Your task to perform on an android device: Clear the shopping cart on target.com. Search for lenovo thinkpad on target.com, select the first entry, add it to the cart, then select checkout. Image 0: 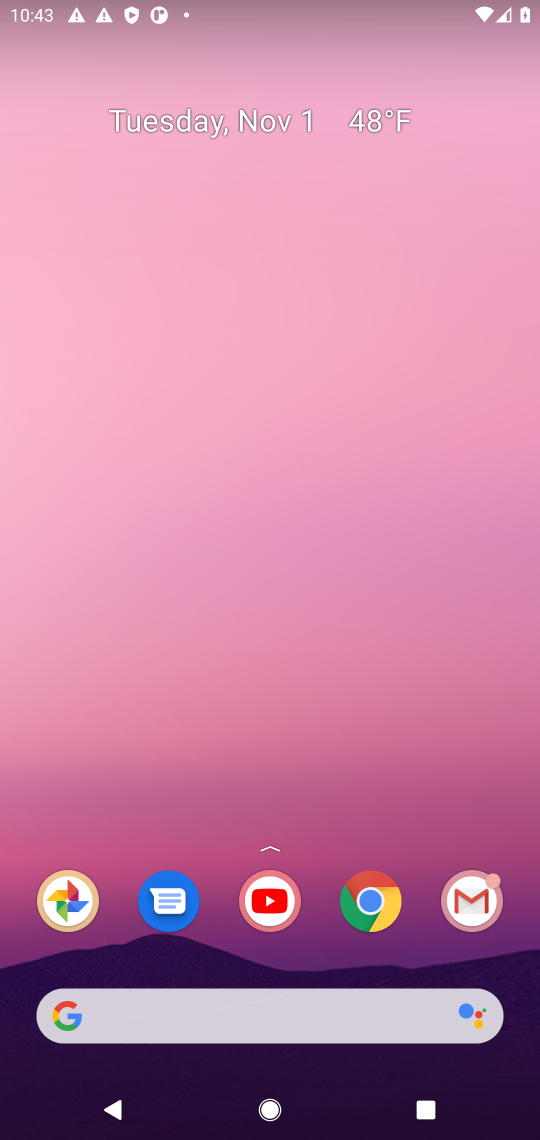
Step 0: drag from (319, 873) to (269, 222)
Your task to perform on an android device: Clear the shopping cart on target.com. Search for lenovo thinkpad on target.com, select the first entry, add it to the cart, then select checkout. Image 1: 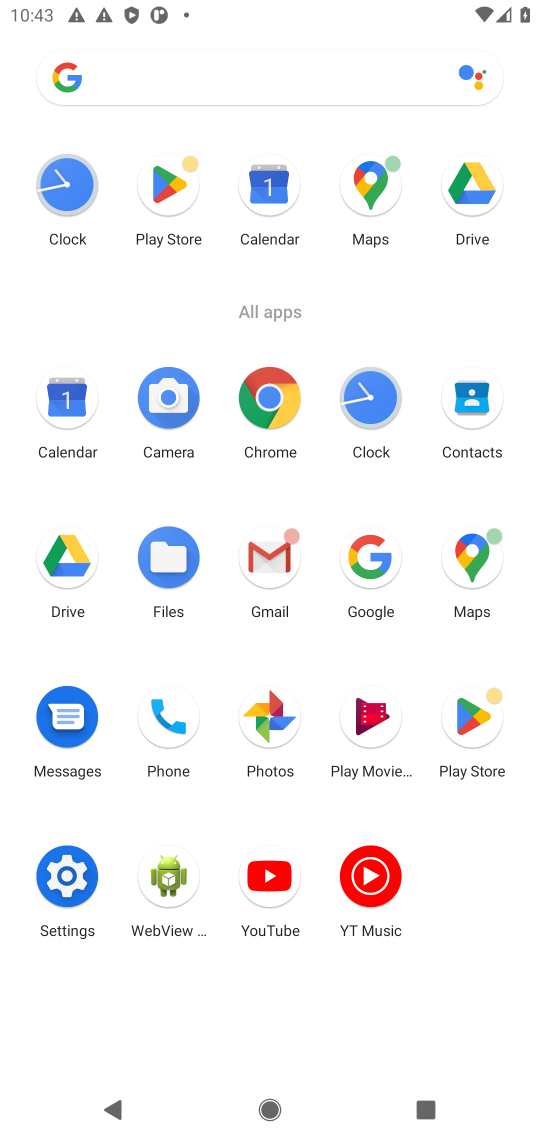
Step 1: click (271, 401)
Your task to perform on an android device: Clear the shopping cart on target.com. Search for lenovo thinkpad on target.com, select the first entry, add it to the cart, then select checkout. Image 2: 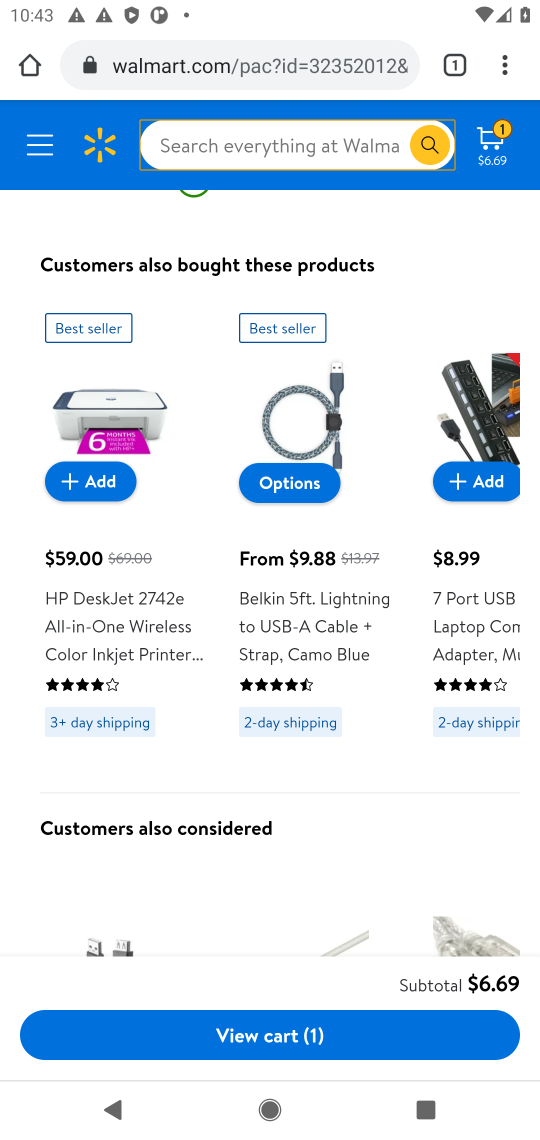
Step 2: click (308, 57)
Your task to perform on an android device: Clear the shopping cart on target.com. Search for lenovo thinkpad on target.com, select the first entry, add it to the cart, then select checkout. Image 3: 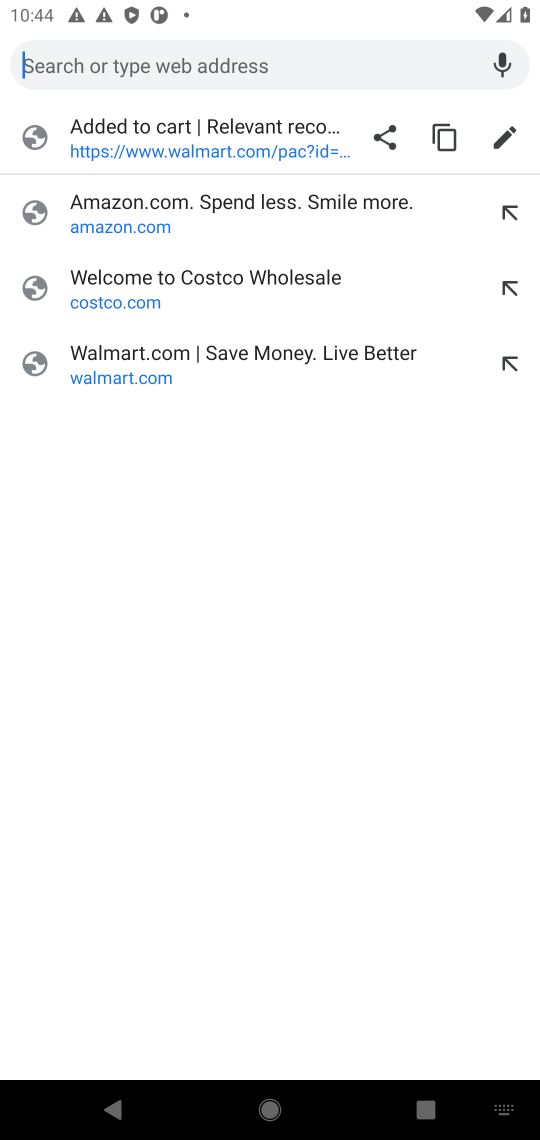
Step 3: type "target.com"
Your task to perform on an android device: Clear the shopping cart on target.com. Search for lenovo thinkpad on target.com, select the first entry, add it to the cart, then select checkout. Image 4: 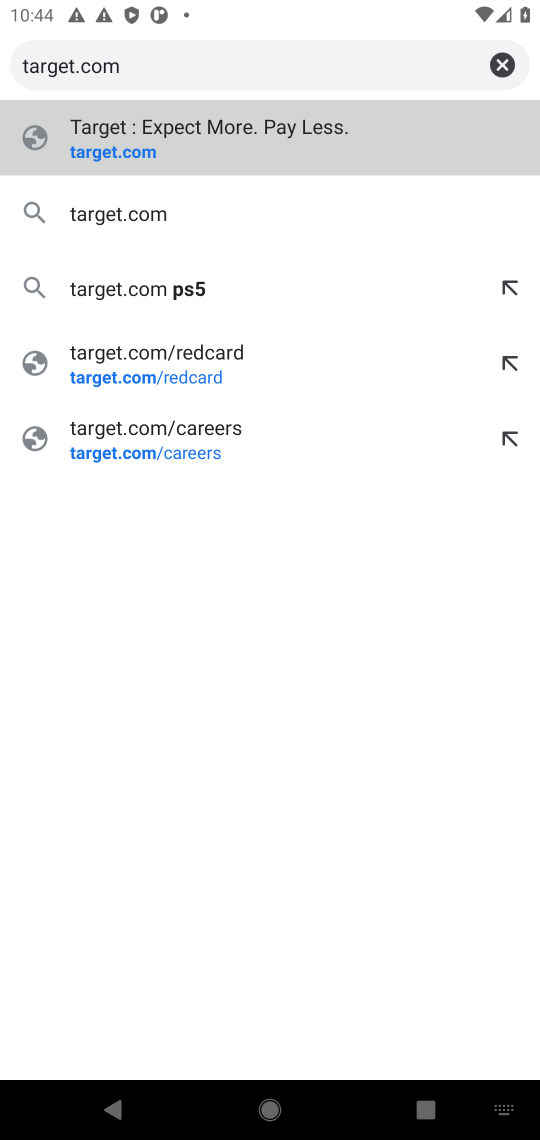
Step 4: press enter
Your task to perform on an android device: Clear the shopping cart on target.com. Search for lenovo thinkpad on target.com, select the first entry, add it to the cart, then select checkout. Image 5: 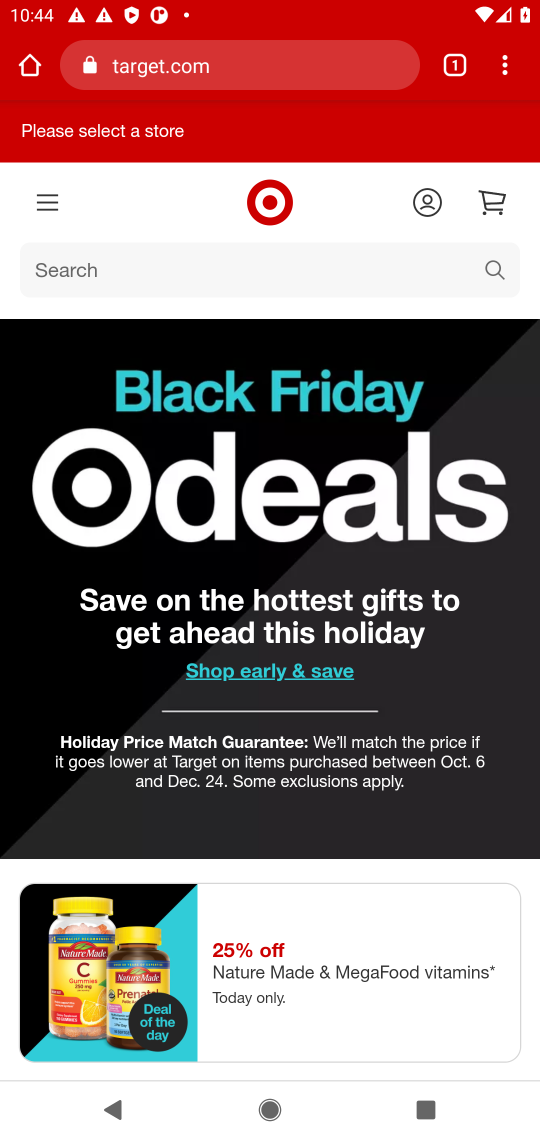
Step 5: click (505, 201)
Your task to perform on an android device: Clear the shopping cart on target.com. Search for lenovo thinkpad on target.com, select the first entry, add it to the cart, then select checkout. Image 6: 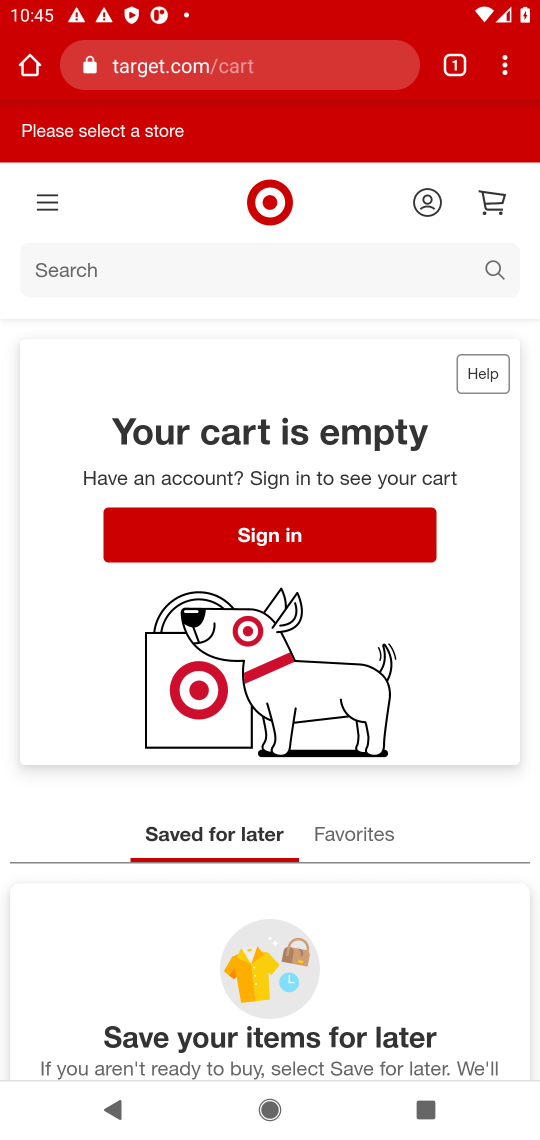
Step 6: click (332, 270)
Your task to perform on an android device: Clear the shopping cart on target.com. Search for lenovo thinkpad on target.com, select the first entry, add it to the cart, then select checkout. Image 7: 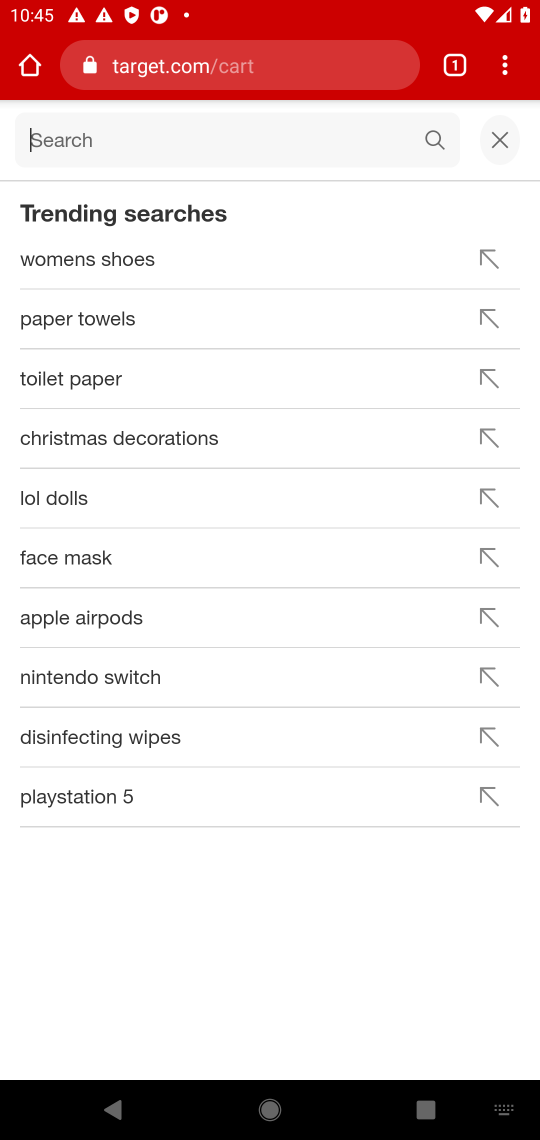
Step 7: type "lenovo thinkpad"
Your task to perform on an android device: Clear the shopping cart on target.com. Search for lenovo thinkpad on target.com, select the first entry, add it to the cart, then select checkout. Image 8: 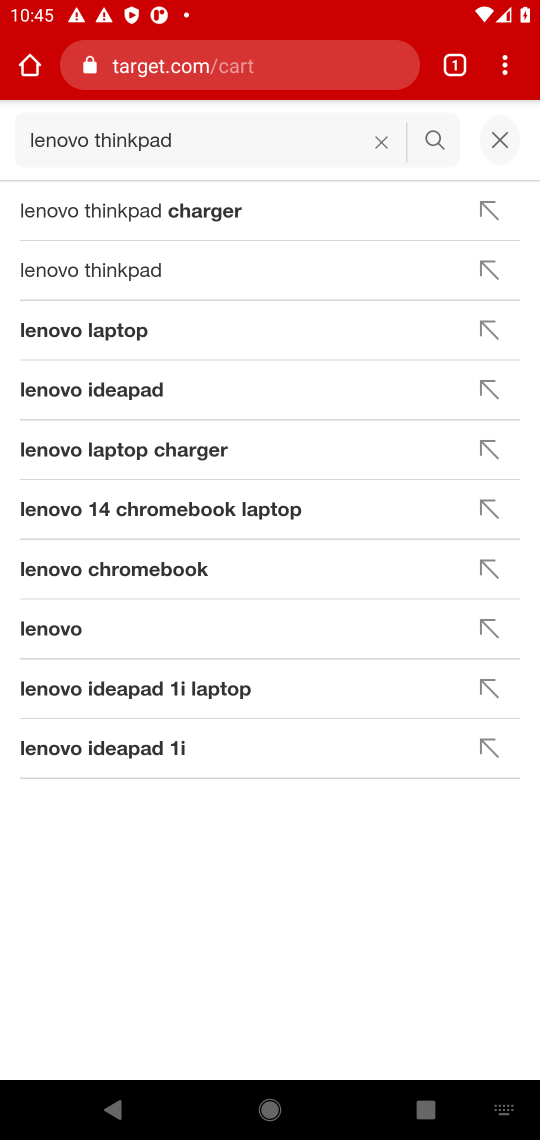
Step 8: press enter
Your task to perform on an android device: Clear the shopping cart on target.com. Search for lenovo thinkpad on target.com, select the first entry, add it to the cart, then select checkout. Image 9: 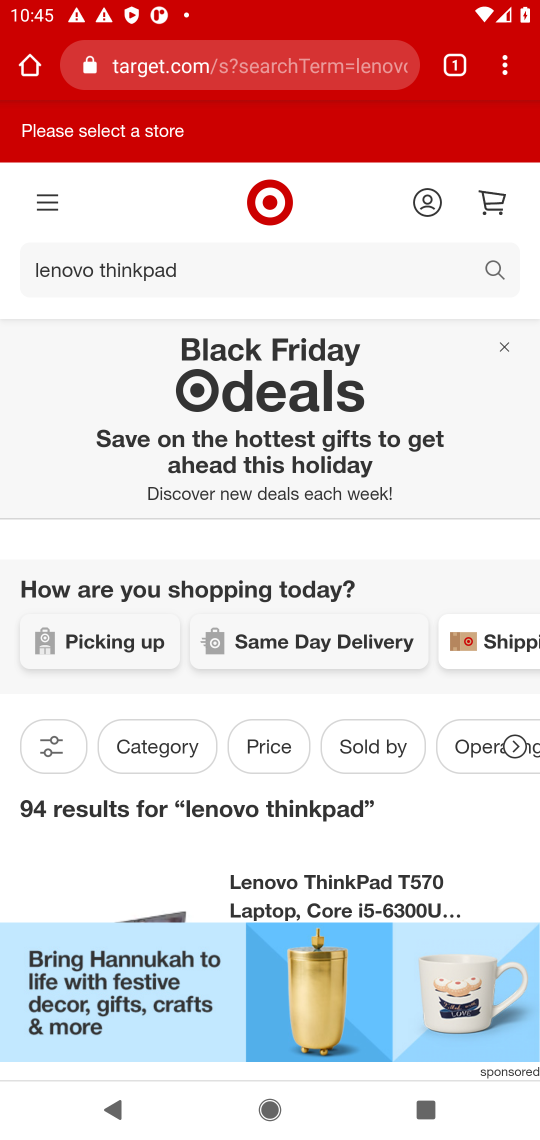
Step 9: drag from (348, 783) to (398, 458)
Your task to perform on an android device: Clear the shopping cart on target.com. Search for lenovo thinkpad on target.com, select the first entry, add it to the cart, then select checkout. Image 10: 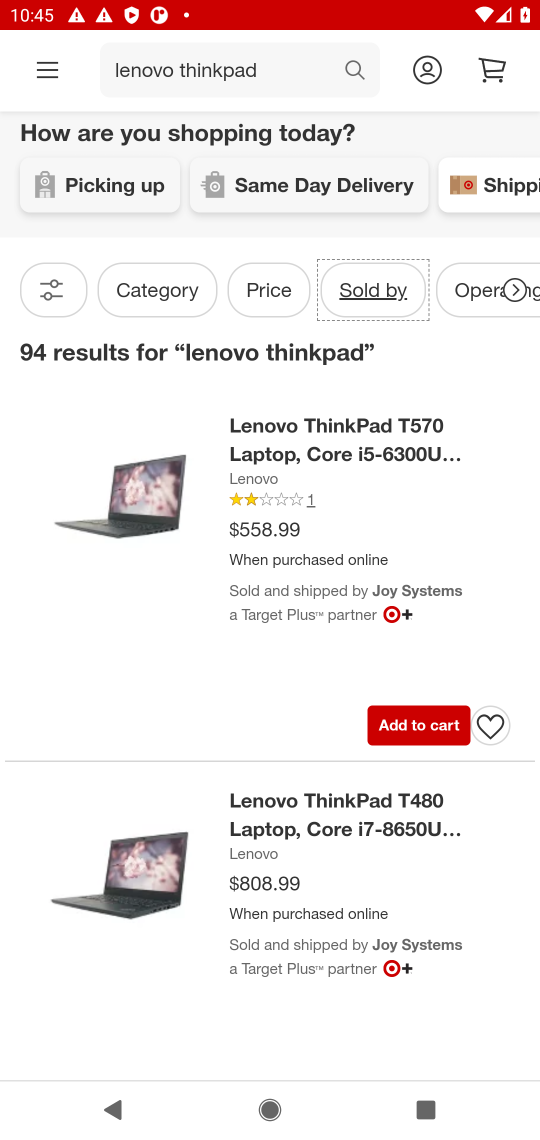
Step 10: click (401, 722)
Your task to perform on an android device: Clear the shopping cart on target.com. Search for lenovo thinkpad on target.com, select the first entry, add it to the cart, then select checkout. Image 11: 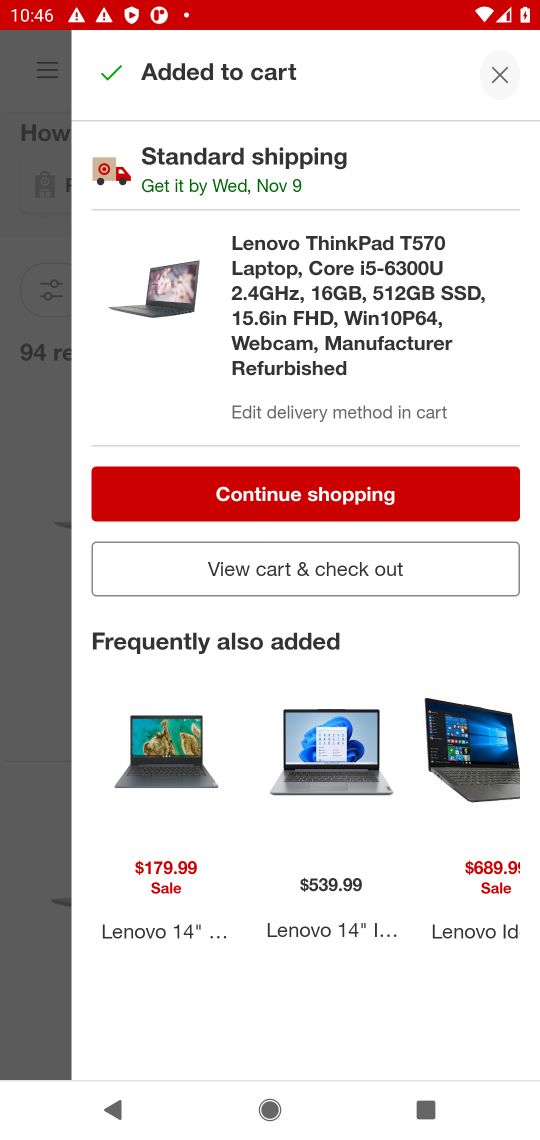
Step 11: click (355, 572)
Your task to perform on an android device: Clear the shopping cart on target.com. Search for lenovo thinkpad on target.com, select the first entry, add it to the cart, then select checkout. Image 12: 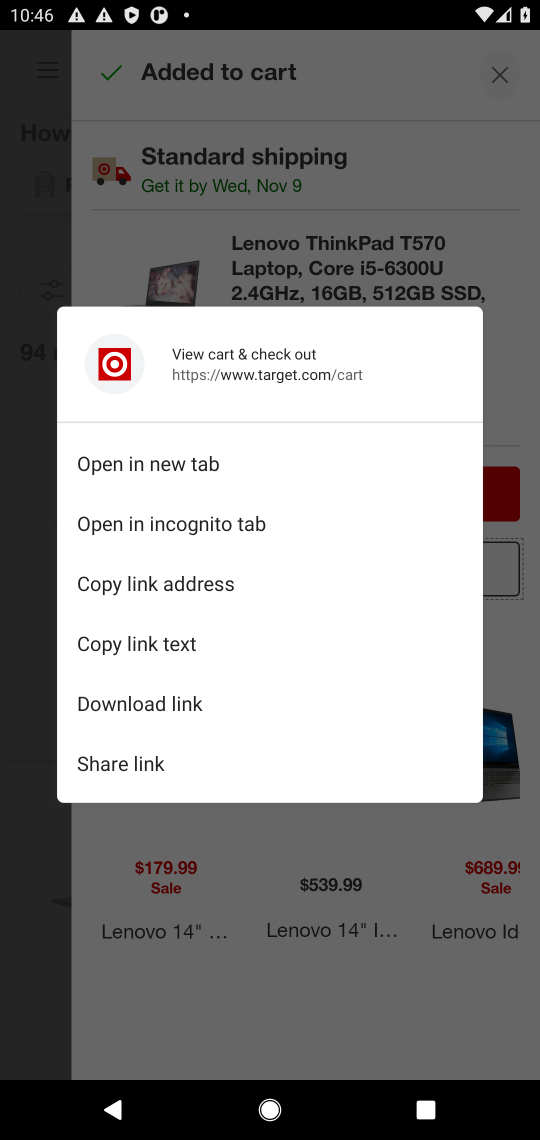
Step 12: click (356, 193)
Your task to perform on an android device: Clear the shopping cart on target.com. Search for lenovo thinkpad on target.com, select the first entry, add it to the cart, then select checkout. Image 13: 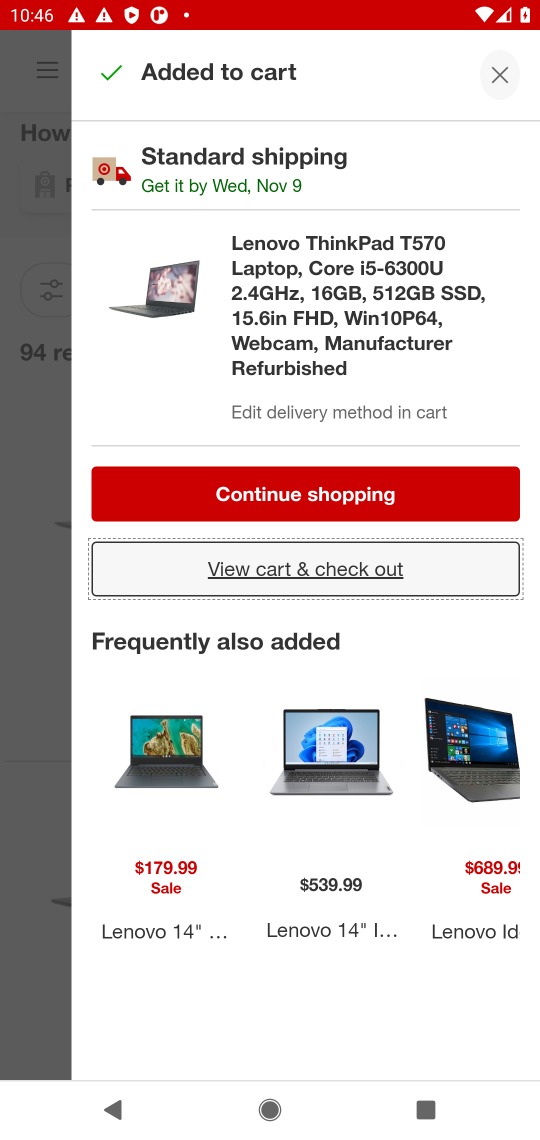
Step 13: click (449, 573)
Your task to perform on an android device: Clear the shopping cart on target.com. Search for lenovo thinkpad on target.com, select the first entry, add it to the cart, then select checkout. Image 14: 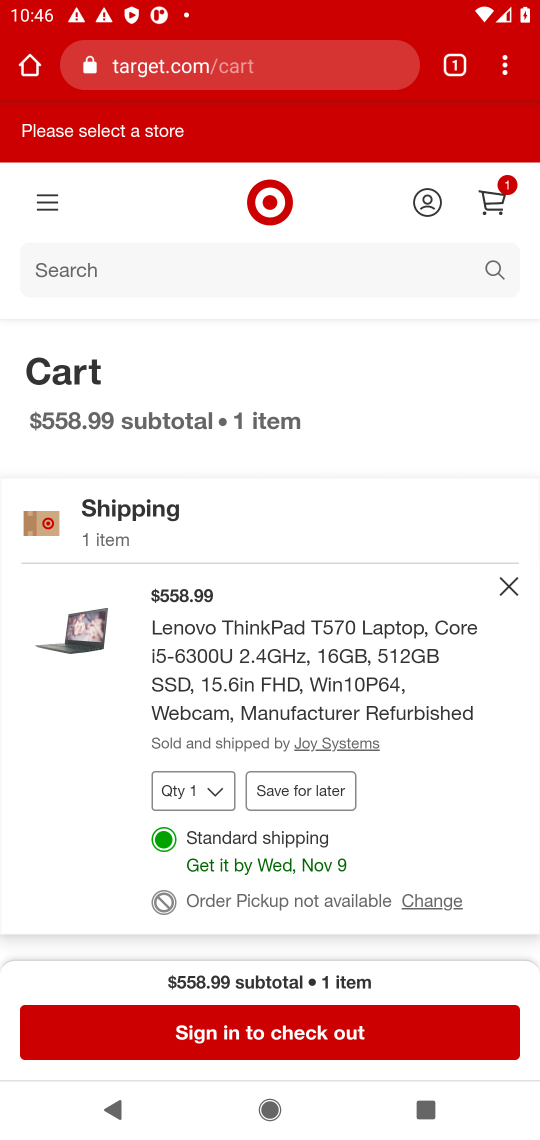
Step 14: click (348, 1020)
Your task to perform on an android device: Clear the shopping cart on target.com. Search for lenovo thinkpad on target.com, select the first entry, add it to the cart, then select checkout. Image 15: 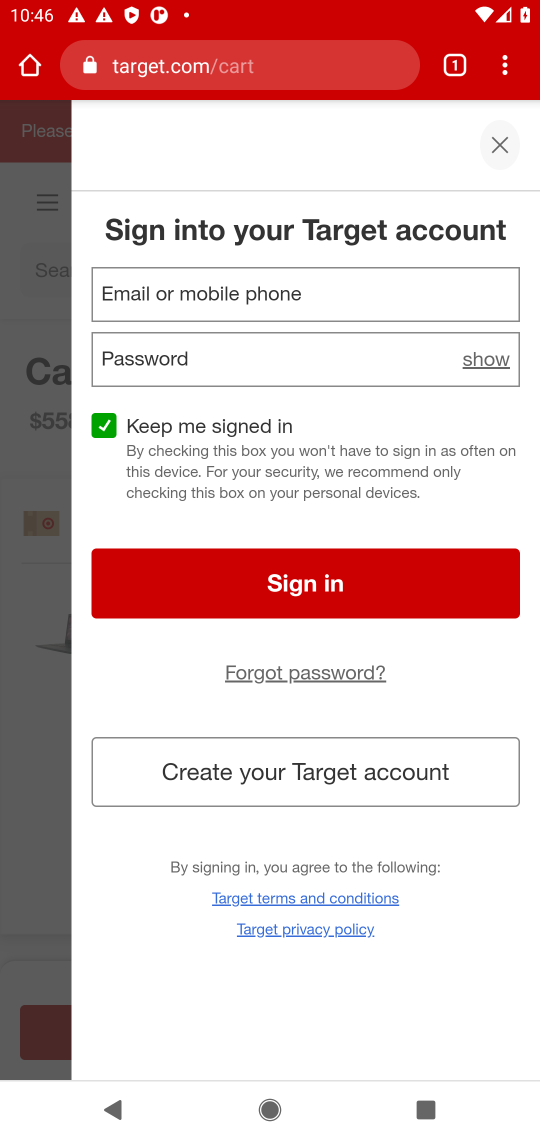
Step 15: task complete